Your task to perform on an android device: Open maps Image 0: 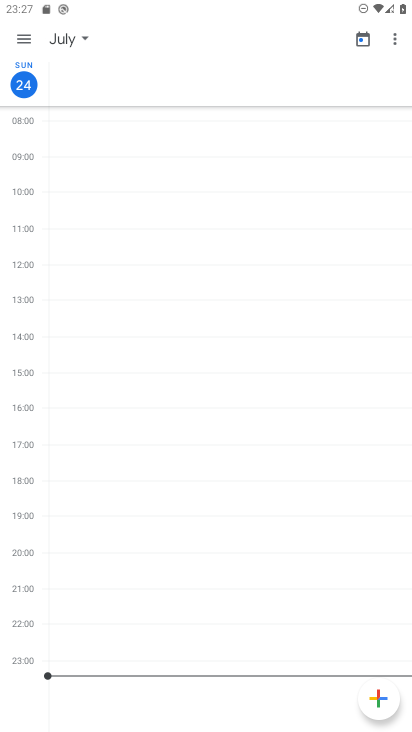
Step 0: press home button
Your task to perform on an android device: Open maps Image 1: 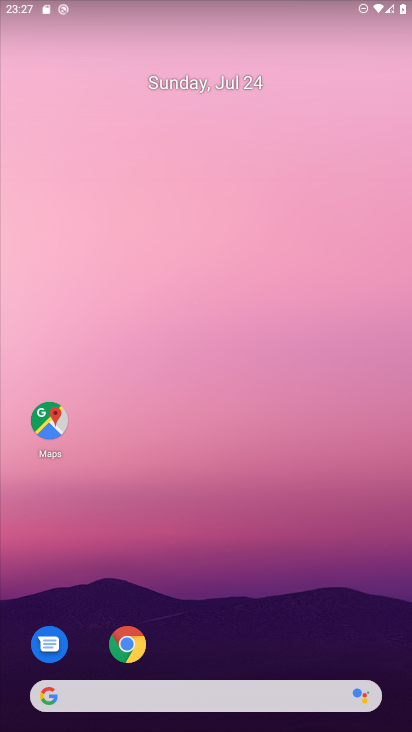
Step 1: click (50, 419)
Your task to perform on an android device: Open maps Image 2: 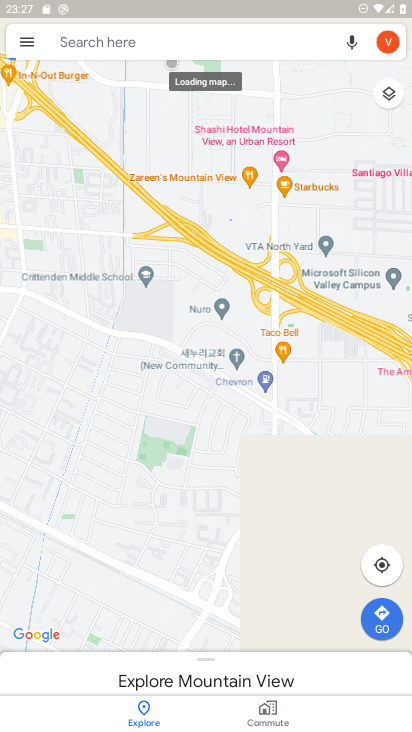
Step 2: task complete